Your task to perform on an android device: Go to Reddit.com Image 0: 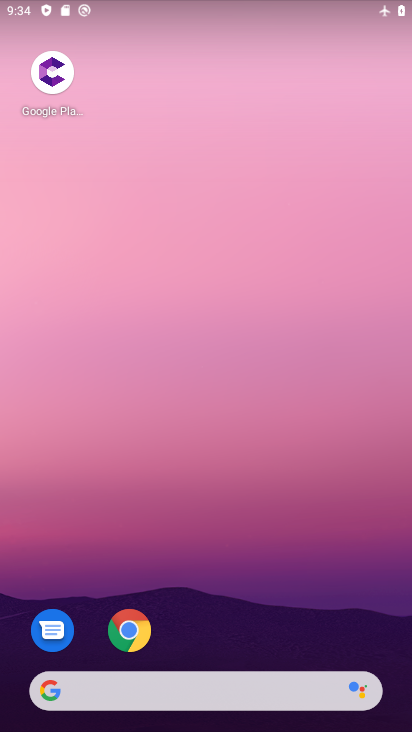
Step 0: click (121, 626)
Your task to perform on an android device: Go to Reddit.com Image 1: 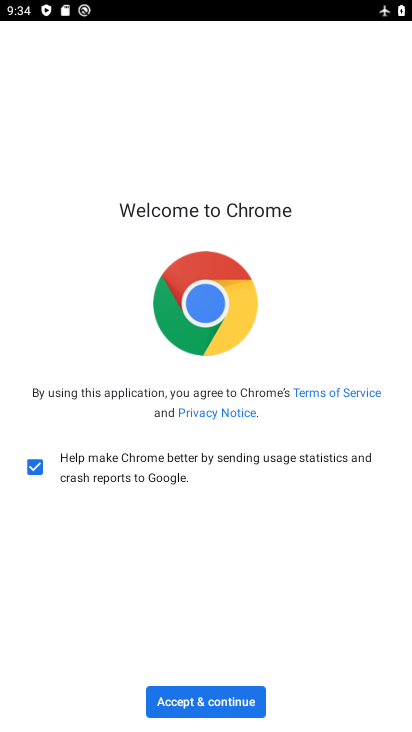
Step 1: click (252, 710)
Your task to perform on an android device: Go to Reddit.com Image 2: 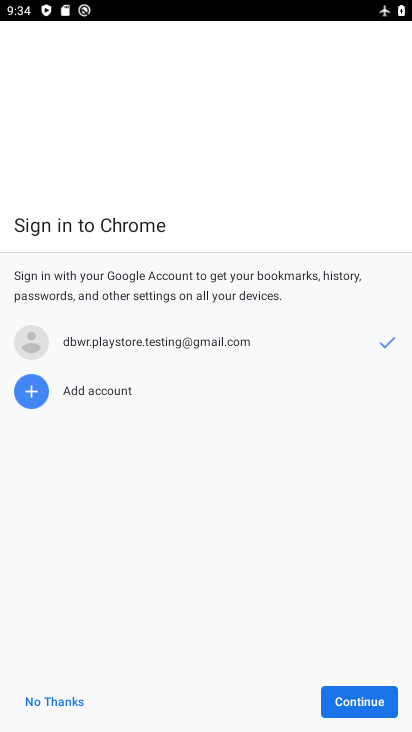
Step 2: click (371, 708)
Your task to perform on an android device: Go to Reddit.com Image 3: 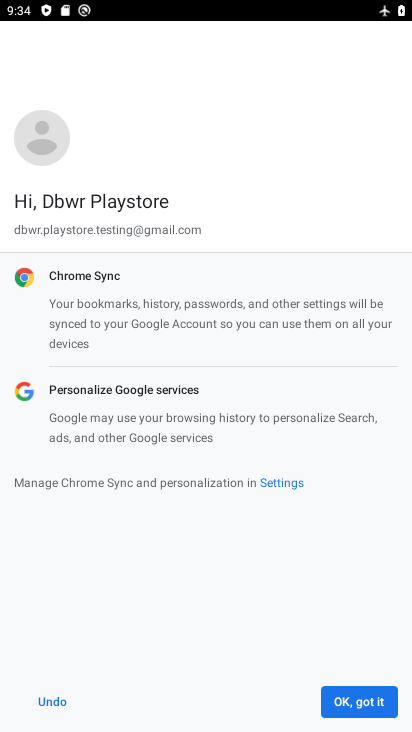
Step 3: click (337, 697)
Your task to perform on an android device: Go to Reddit.com Image 4: 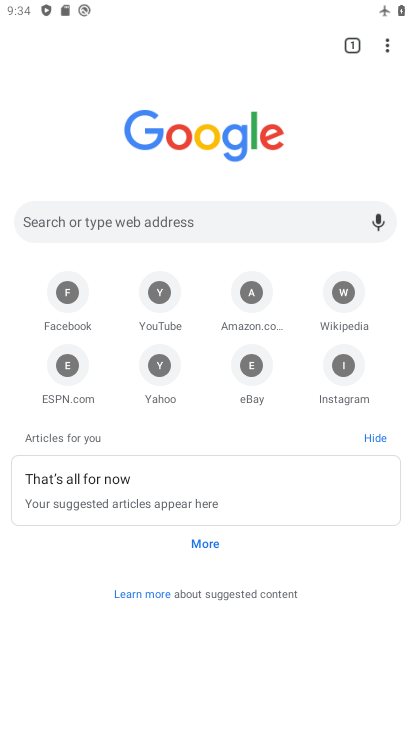
Step 4: click (221, 227)
Your task to perform on an android device: Go to Reddit.com Image 5: 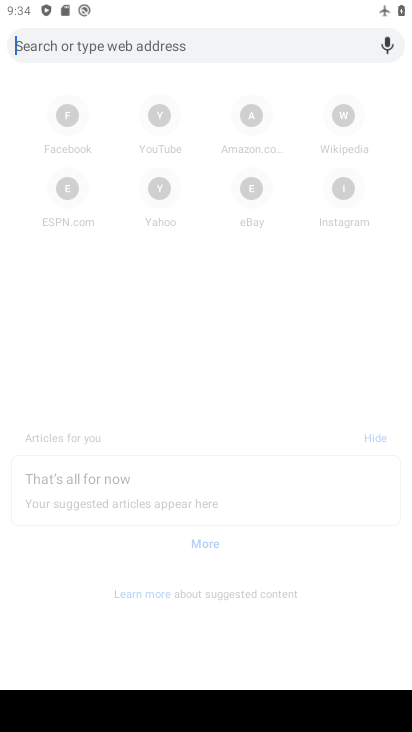
Step 5: type "reddit.com"
Your task to perform on an android device: Go to Reddit.com Image 6: 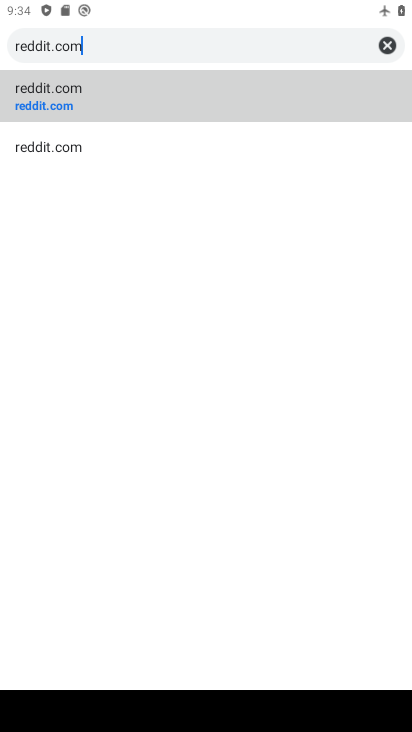
Step 6: click (87, 88)
Your task to perform on an android device: Go to Reddit.com Image 7: 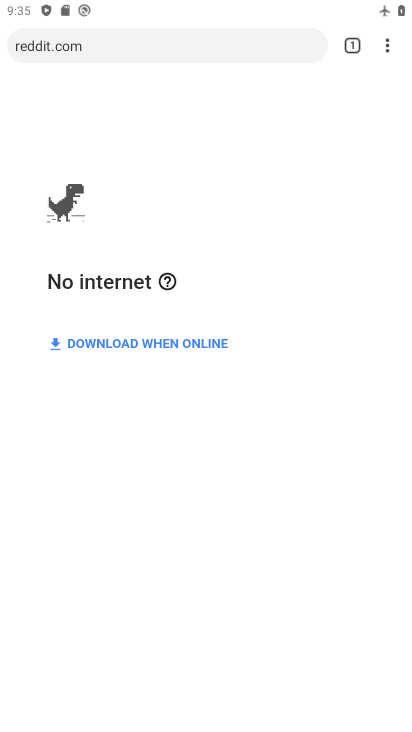
Step 7: task complete